Your task to perform on an android device: What's the weather going to be this weekend? Image 0: 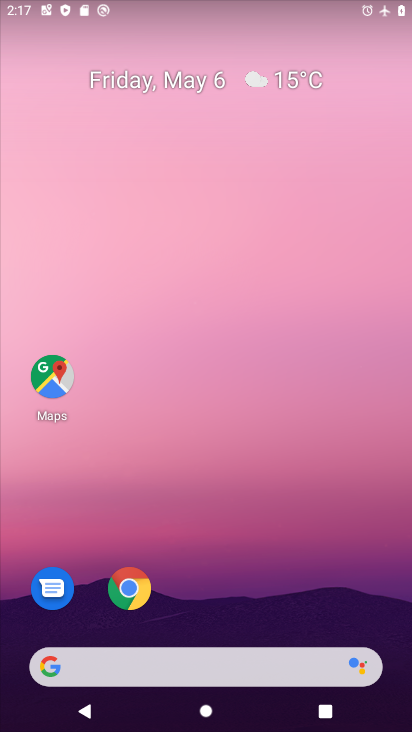
Step 0: drag from (216, 587) to (227, 163)
Your task to perform on an android device: What's the weather going to be this weekend? Image 1: 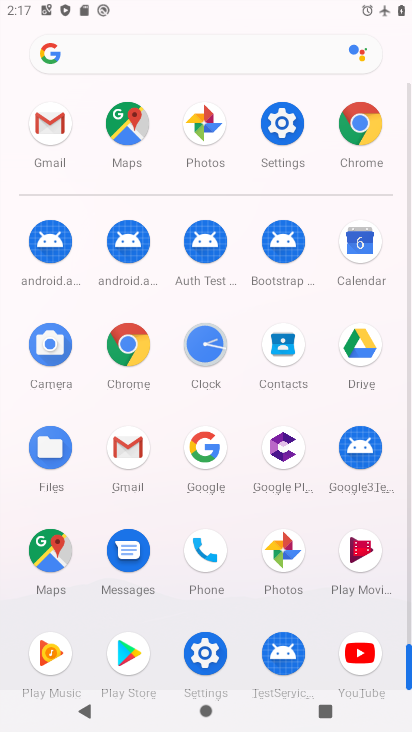
Step 1: click (220, 48)
Your task to perform on an android device: What's the weather going to be this weekend? Image 2: 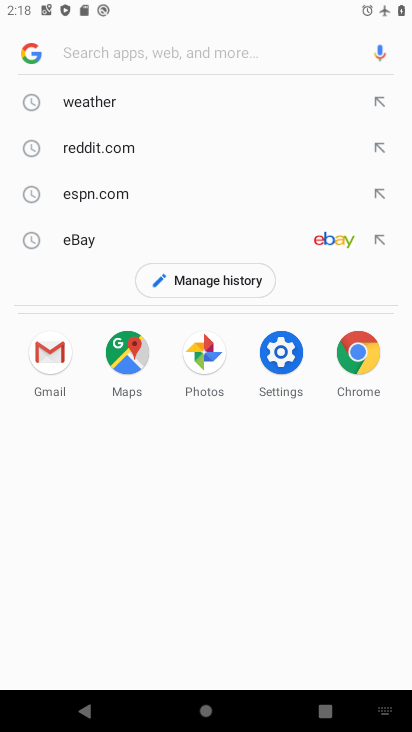
Step 2: type "weather weekend"
Your task to perform on an android device: What's the weather going to be this weekend? Image 3: 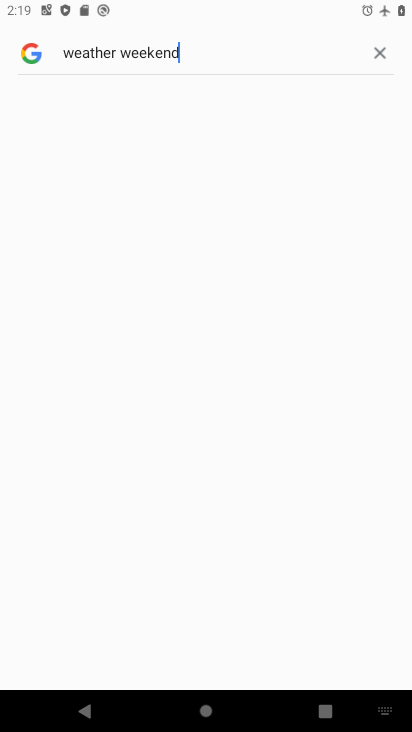
Step 3: drag from (153, 561) to (233, 73)
Your task to perform on an android device: What's the weather going to be this weekend? Image 4: 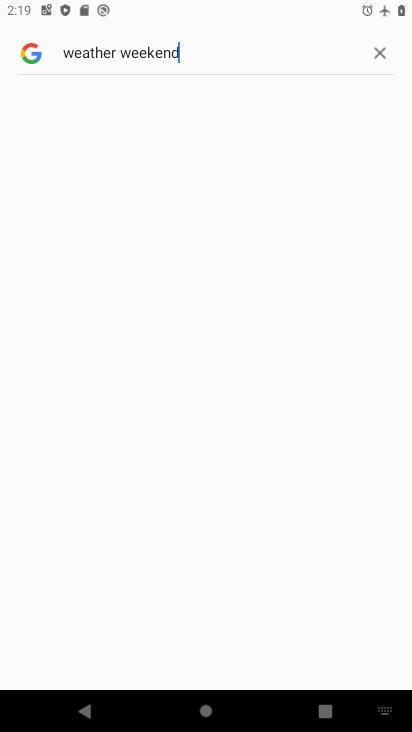
Step 4: drag from (150, 609) to (214, 288)
Your task to perform on an android device: What's the weather going to be this weekend? Image 5: 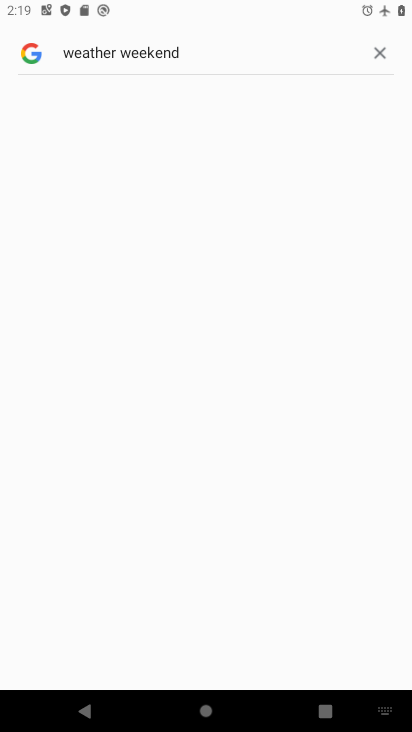
Step 5: click (232, 92)
Your task to perform on an android device: What's the weather going to be this weekend? Image 6: 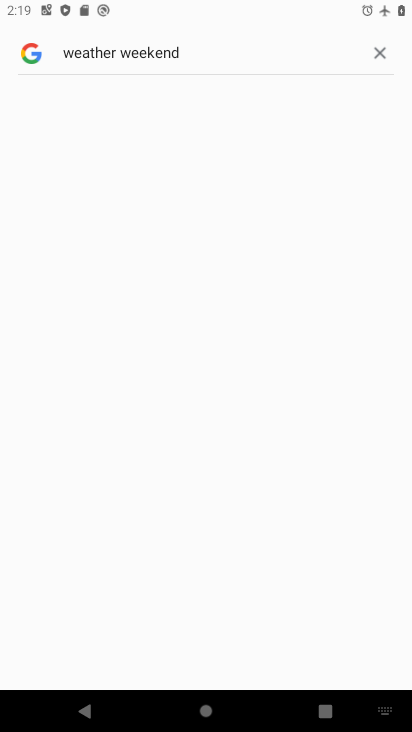
Step 6: task complete